Your task to perform on an android device: open app "Messenger Lite" (install if not already installed) and enter user name: "cataclysmic@outlook.com" and password: "victoriously" Image 0: 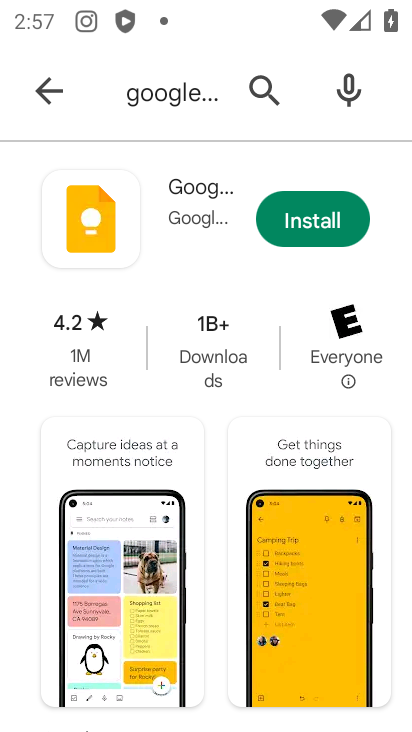
Step 0: click (140, 91)
Your task to perform on an android device: open app "Messenger Lite" (install if not already installed) and enter user name: "cataclysmic@outlook.com" and password: "victoriously" Image 1: 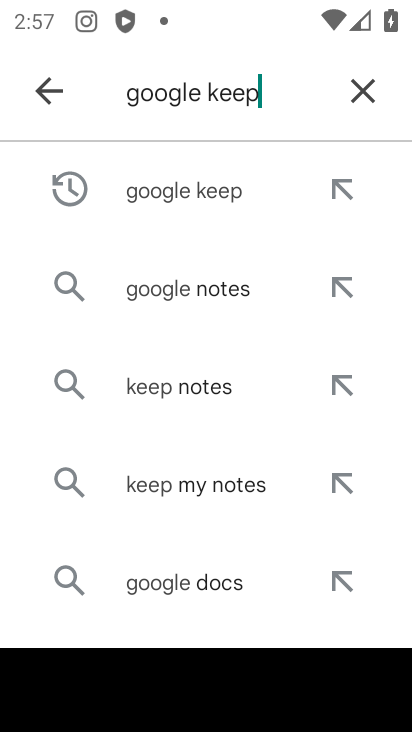
Step 1: click (363, 90)
Your task to perform on an android device: open app "Messenger Lite" (install if not already installed) and enter user name: "cataclysmic@outlook.com" and password: "victoriously" Image 2: 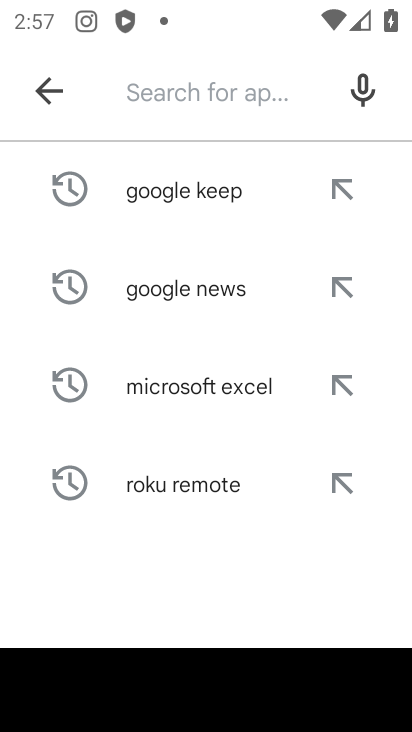
Step 2: type "messenger lite"
Your task to perform on an android device: open app "Messenger Lite" (install if not already installed) and enter user name: "cataclysmic@outlook.com" and password: "victoriously" Image 3: 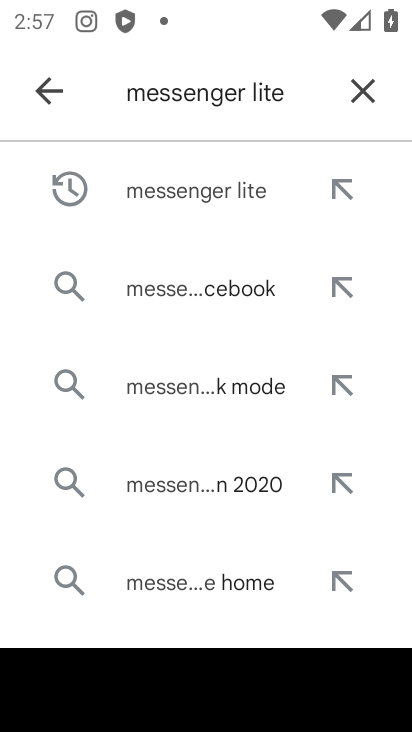
Step 3: click (206, 202)
Your task to perform on an android device: open app "Messenger Lite" (install if not already installed) and enter user name: "cataclysmic@outlook.com" and password: "victoriously" Image 4: 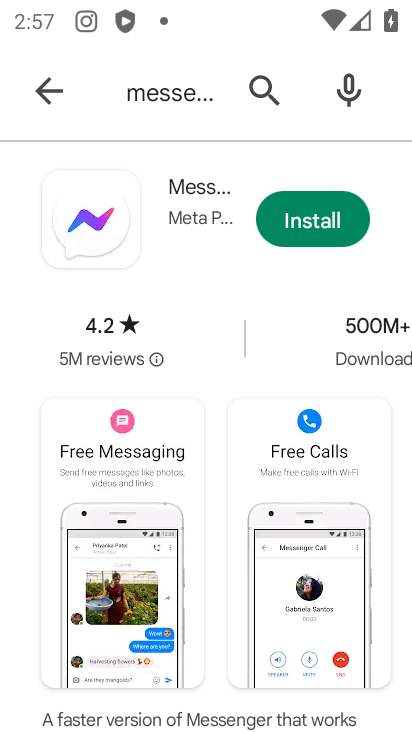
Step 4: click (338, 236)
Your task to perform on an android device: open app "Messenger Lite" (install if not already installed) and enter user name: "cataclysmic@outlook.com" and password: "victoriously" Image 5: 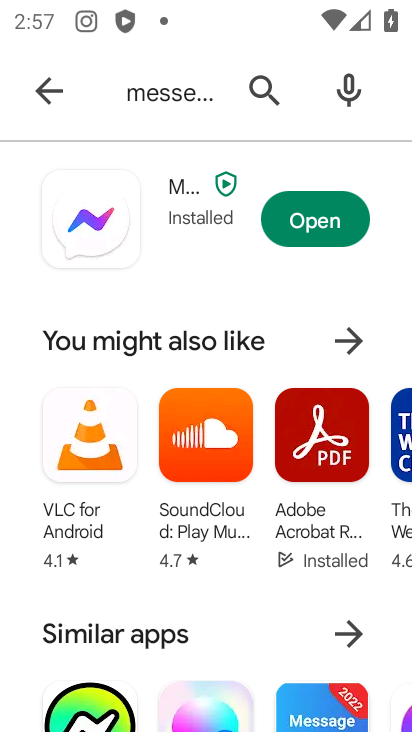
Step 5: click (321, 223)
Your task to perform on an android device: open app "Messenger Lite" (install if not already installed) and enter user name: "cataclysmic@outlook.com" and password: "victoriously" Image 6: 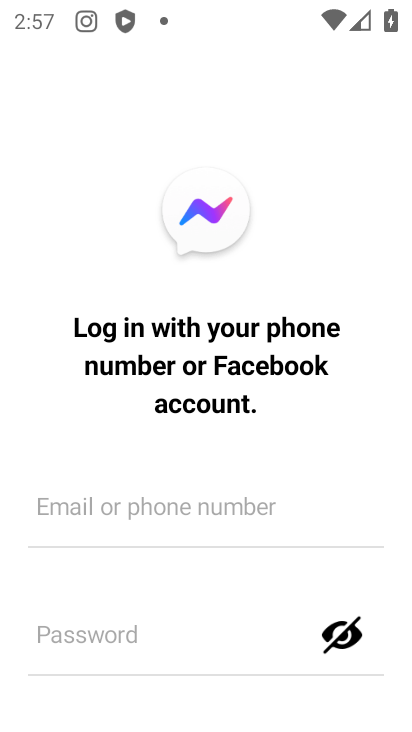
Step 6: drag from (193, 504) to (201, 329)
Your task to perform on an android device: open app "Messenger Lite" (install if not already installed) and enter user name: "cataclysmic@outlook.com" and password: "victoriously" Image 7: 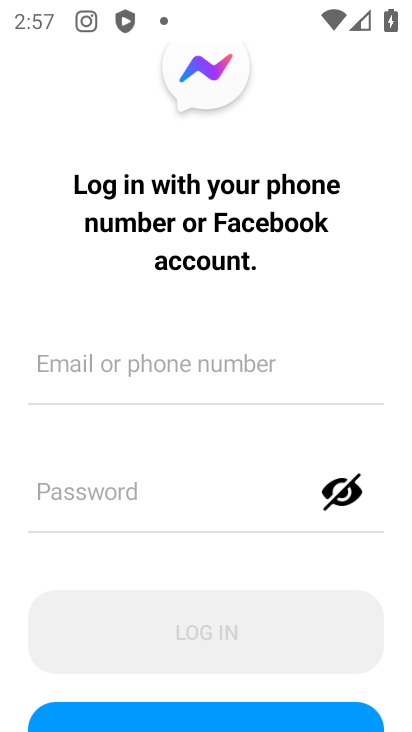
Step 7: click (180, 376)
Your task to perform on an android device: open app "Messenger Lite" (install if not already installed) and enter user name: "cataclysmic@outlook.com" and password: "victoriously" Image 8: 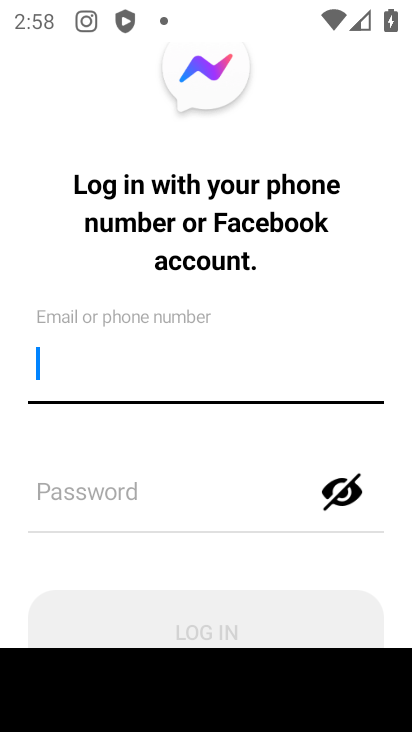
Step 8: type "cataclysmic@outlook.com"
Your task to perform on an android device: open app "Messenger Lite" (install if not already installed) and enter user name: "cataclysmic@outlook.com" and password: "victoriously" Image 9: 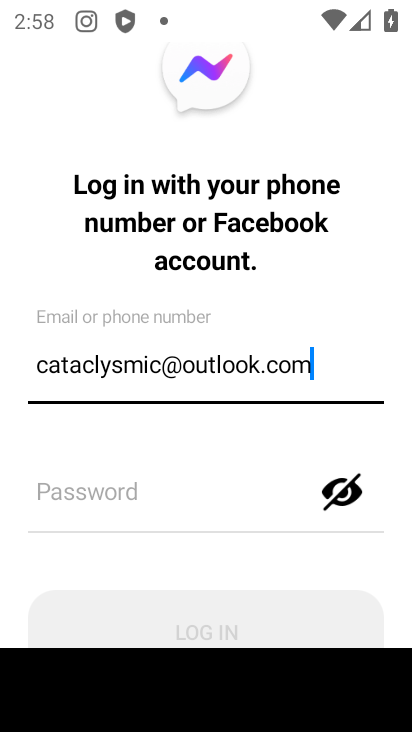
Step 9: click (112, 498)
Your task to perform on an android device: open app "Messenger Lite" (install if not already installed) and enter user name: "cataclysmic@outlook.com" and password: "victoriously" Image 10: 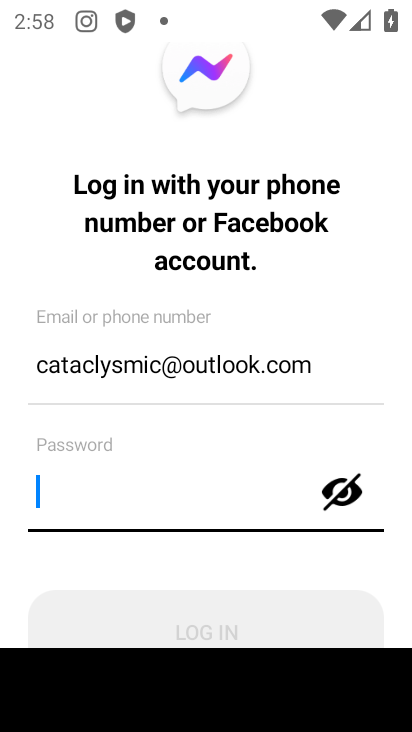
Step 10: type "victoriously"
Your task to perform on an android device: open app "Messenger Lite" (install if not already installed) and enter user name: "cataclysmic@outlook.com" and password: "victoriously" Image 11: 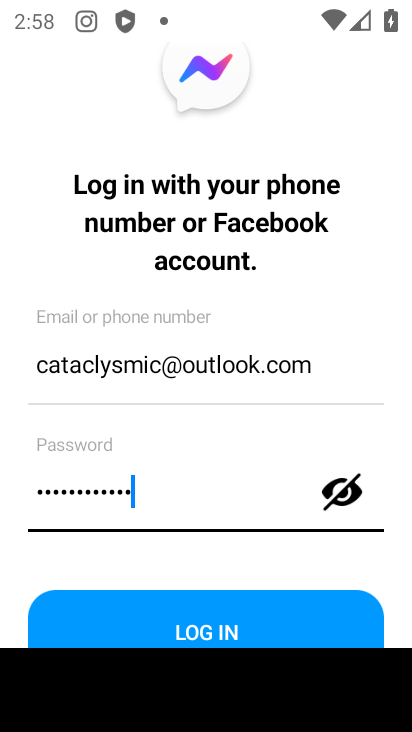
Step 11: click (232, 634)
Your task to perform on an android device: open app "Messenger Lite" (install if not already installed) and enter user name: "cataclysmic@outlook.com" and password: "victoriously" Image 12: 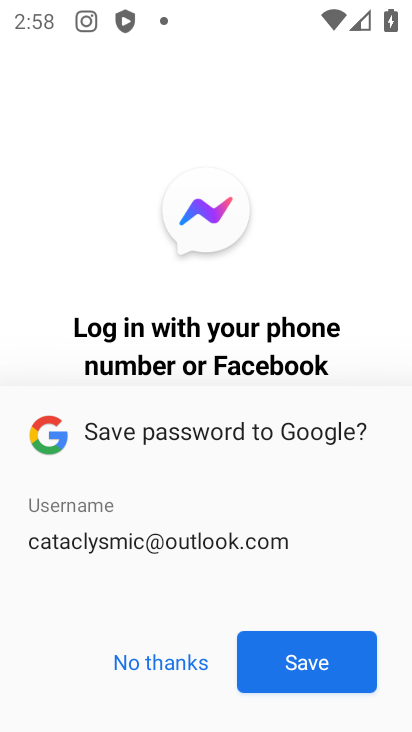
Step 12: click (175, 658)
Your task to perform on an android device: open app "Messenger Lite" (install if not already installed) and enter user name: "cataclysmic@outlook.com" and password: "victoriously" Image 13: 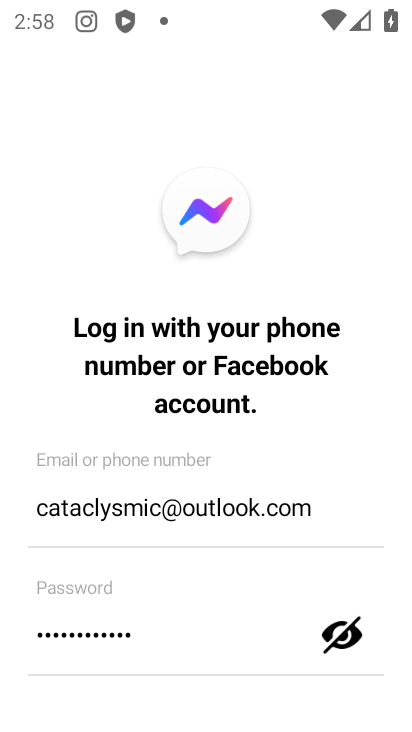
Step 13: task complete